Your task to perform on an android device: make emails show in primary in the gmail app Image 0: 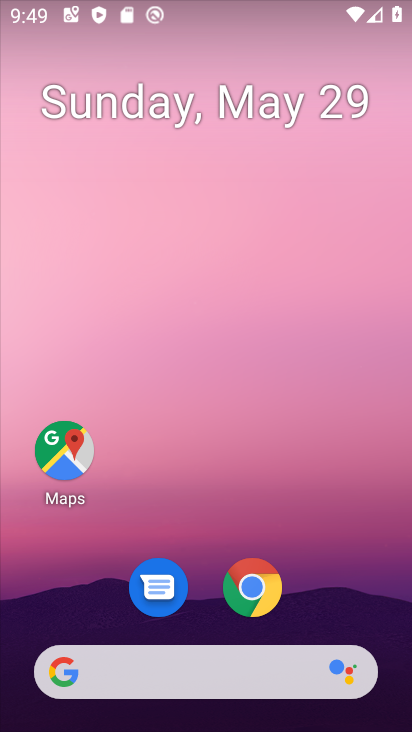
Step 0: drag from (244, 494) to (183, 50)
Your task to perform on an android device: make emails show in primary in the gmail app Image 1: 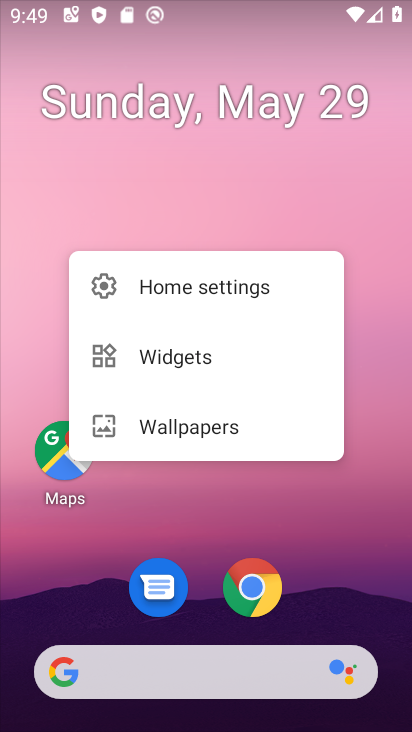
Step 1: click (329, 519)
Your task to perform on an android device: make emails show in primary in the gmail app Image 2: 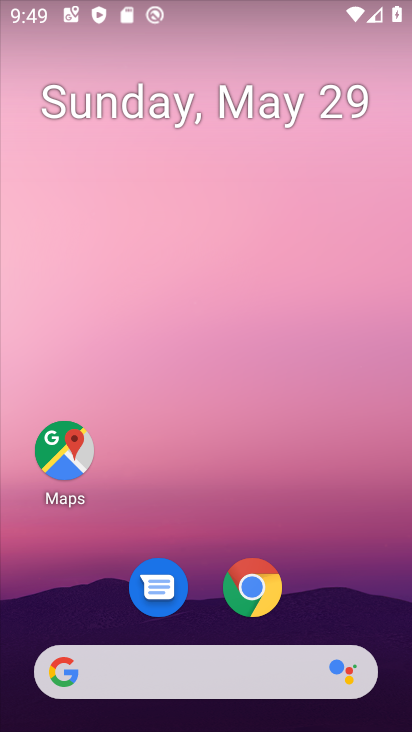
Step 2: drag from (204, 547) to (204, 126)
Your task to perform on an android device: make emails show in primary in the gmail app Image 3: 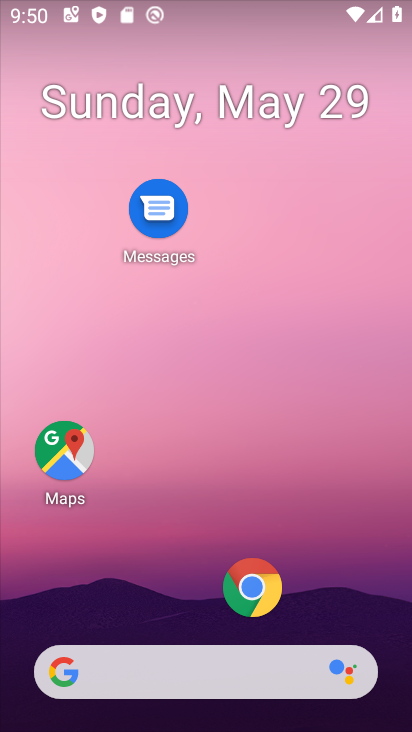
Step 3: drag from (157, 568) to (262, 123)
Your task to perform on an android device: make emails show in primary in the gmail app Image 4: 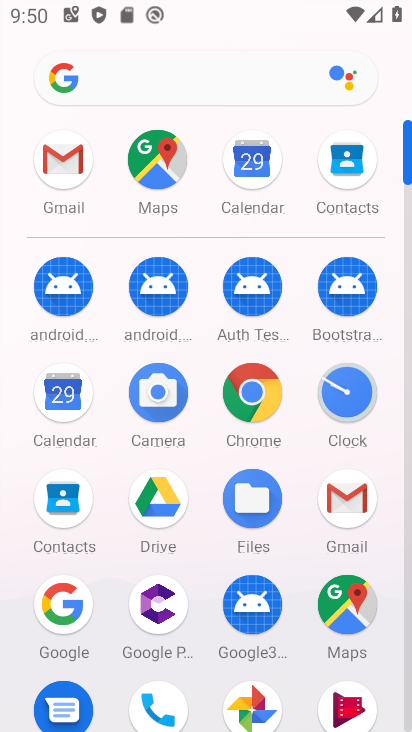
Step 4: click (56, 157)
Your task to perform on an android device: make emails show in primary in the gmail app Image 5: 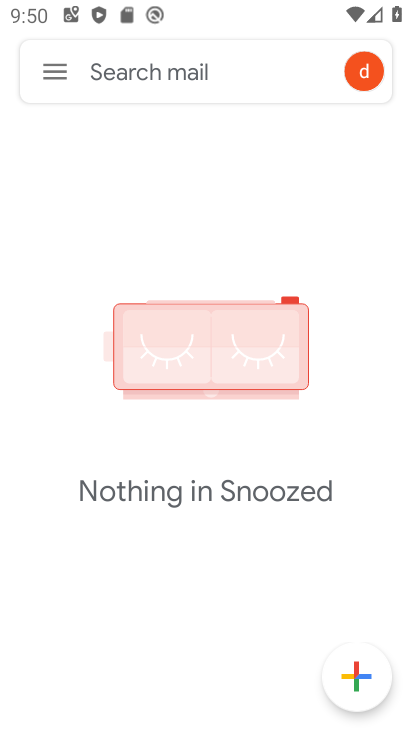
Step 5: click (49, 76)
Your task to perform on an android device: make emails show in primary in the gmail app Image 6: 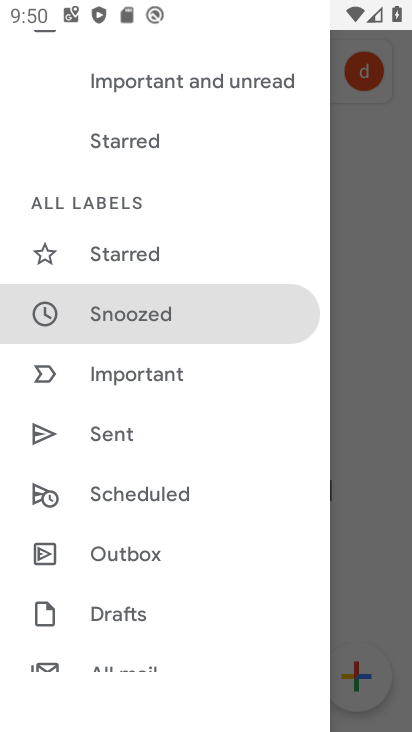
Step 6: drag from (155, 657) to (239, 206)
Your task to perform on an android device: make emails show in primary in the gmail app Image 7: 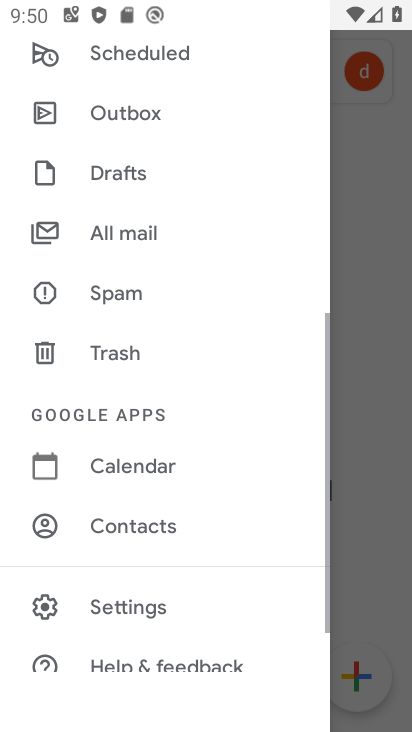
Step 7: click (134, 605)
Your task to perform on an android device: make emails show in primary in the gmail app Image 8: 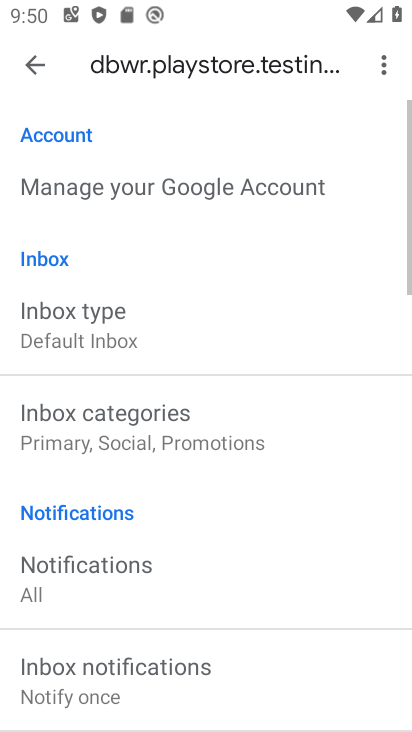
Step 8: click (131, 423)
Your task to perform on an android device: make emails show in primary in the gmail app Image 9: 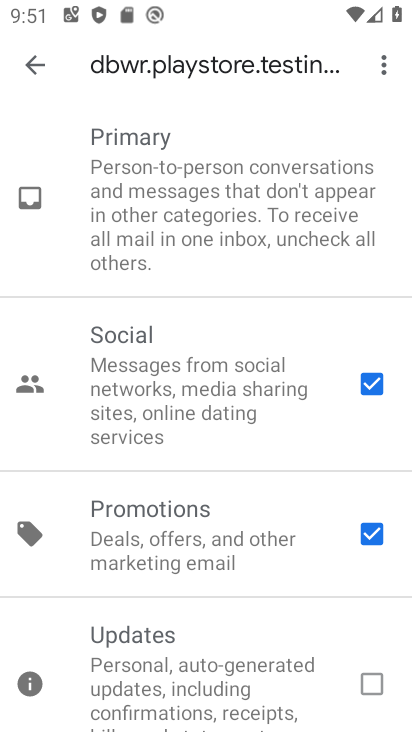
Step 9: drag from (215, 660) to (294, 115)
Your task to perform on an android device: make emails show in primary in the gmail app Image 10: 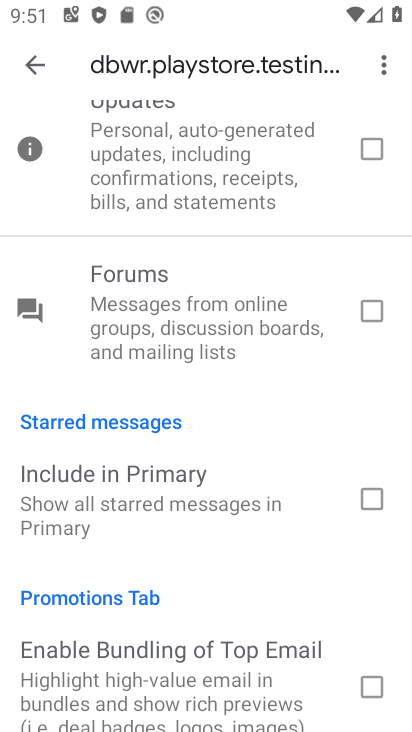
Step 10: click (366, 505)
Your task to perform on an android device: make emails show in primary in the gmail app Image 11: 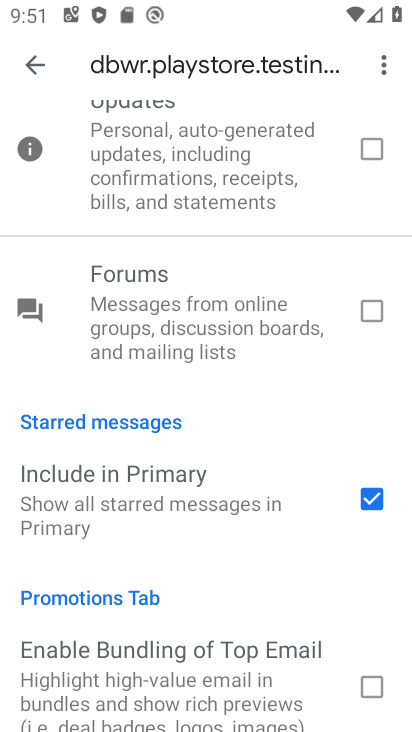
Step 11: task complete